Your task to perform on an android device: Open CNN.com Image 0: 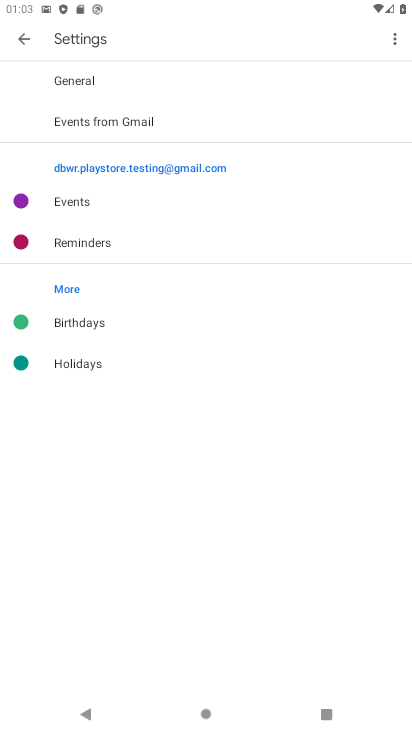
Step 0: press home button
Your task to perform on an android device: Open CNN.com Image 1: 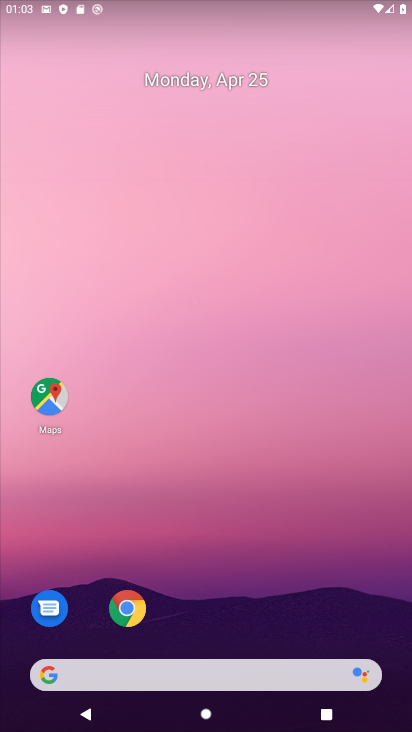
Step 1: click (123, 621)
Your task to perform on an android device: Open CNN.com Image 2: 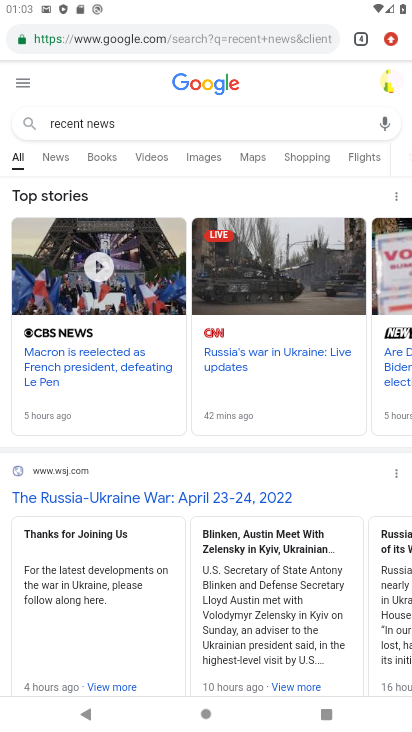
Step 2: click (131, 123)
Your task to perform on an android device: Open CNN.com Image 3: 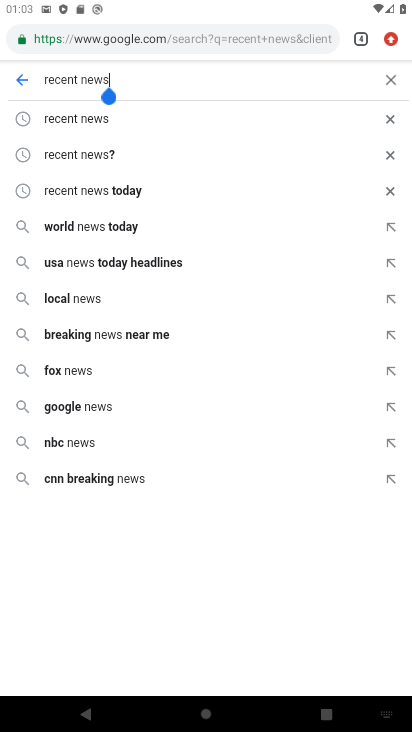
Step 3: click (146, 32)
Your task to perform on an android device: Open CNN.com Image 4: 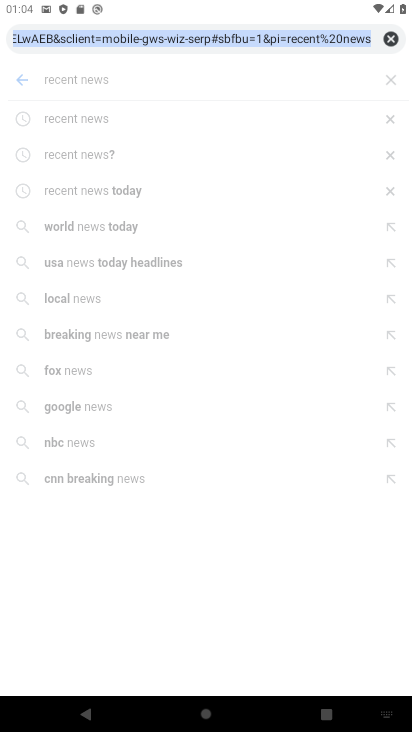
Step 4: type "cnn.com"
Your task to perform on an android device: Open CNN.com Image 5: 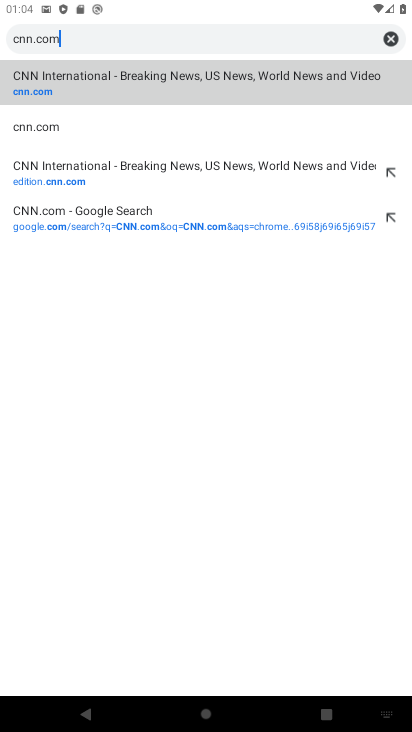
Step 5: click (21, 81)
Your task to perform on an android device: Open CNN.com Image 6: 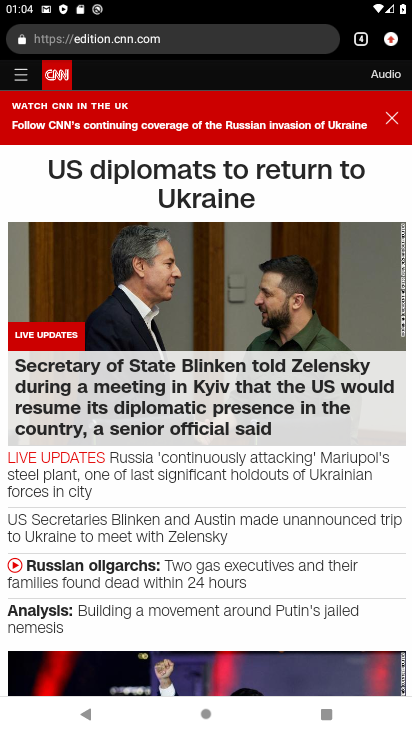
Step 6: task complete